Your task to perform on an android device: toggle priority inbox in the gmail app Image 0: 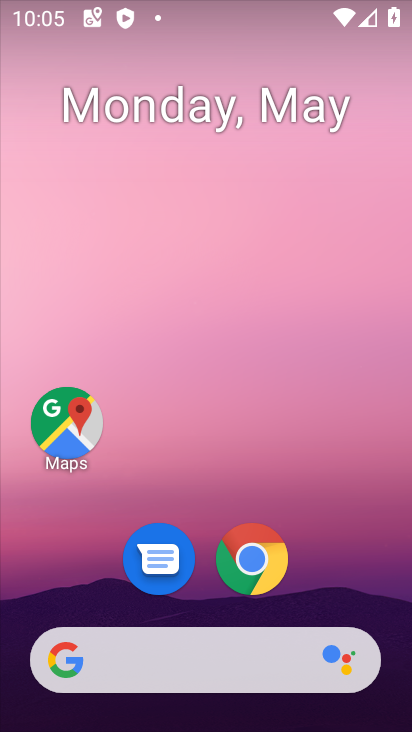
Step 0: drag from (327, 560) to (265, 133)
Your task to perform on an android device: toggle priority inbox in the gmail app Image 1: 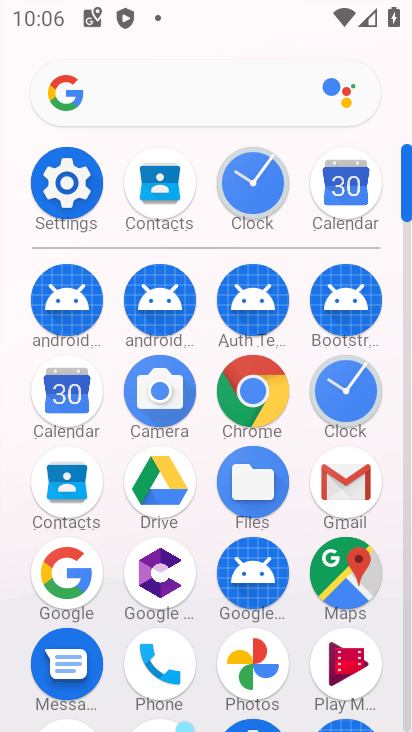
Step 1: click (352, 487)
Your task to perform on an android device: toggle priority inbox in the gmail app Image 2: 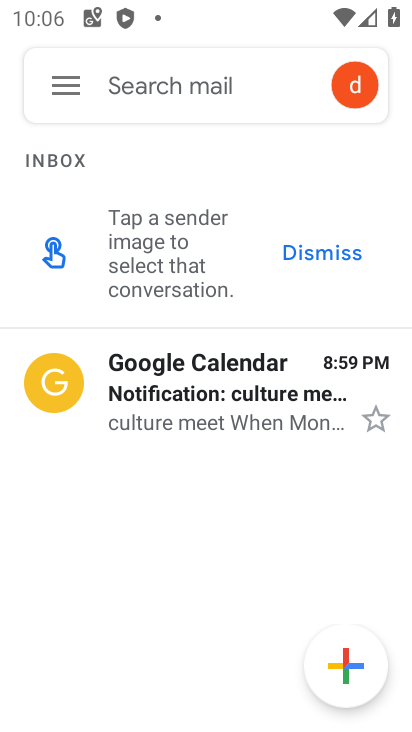
Step 2: click (71, 78)
Your task to perform on an android device: toggle priority inbox in the gmail app Image 3: 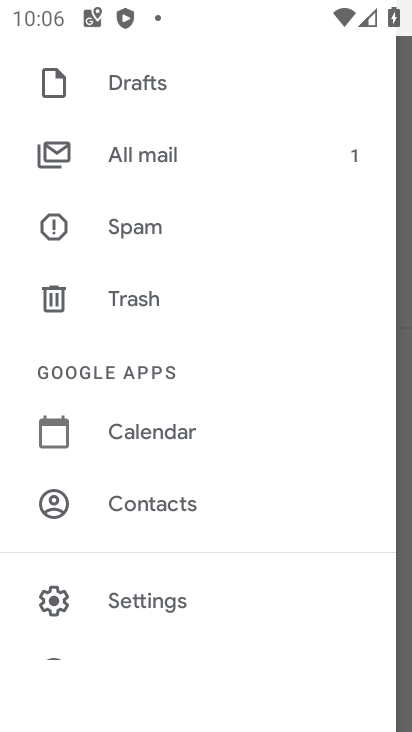
Step 3: click (167, 603)
Your task to perform on an android device: toggle priority inbox in the gmail app Image 4: 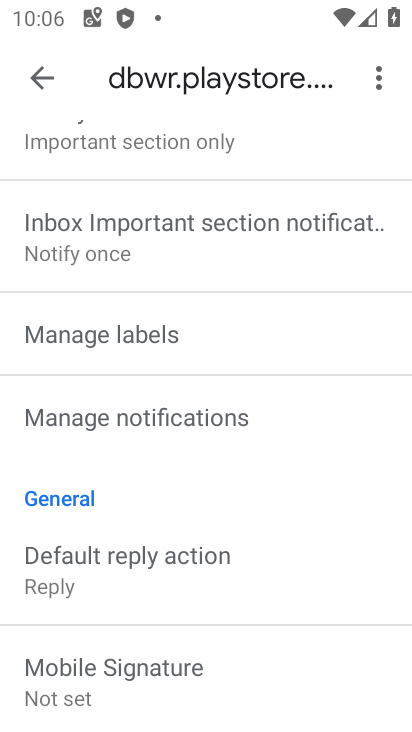
Step 4: drag from (127, 202) to (162, 559)
Your task to perform on an android device: toggle priority inbox in the gmail app Image 5: 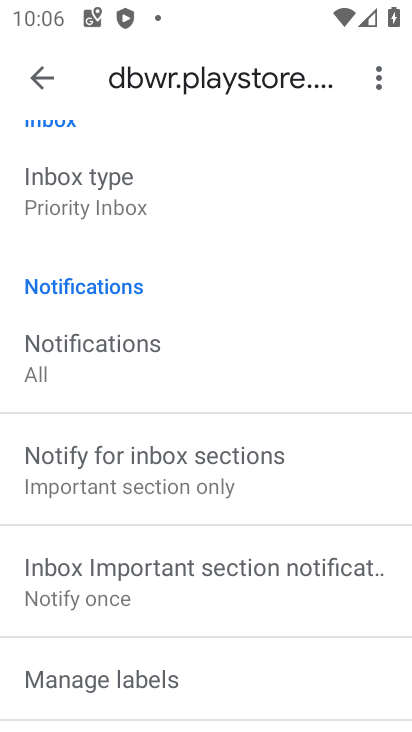
Step 5: click (93, 189)
Your task to perform on an android device: toggle priority inbox in the gmail app Image 6: 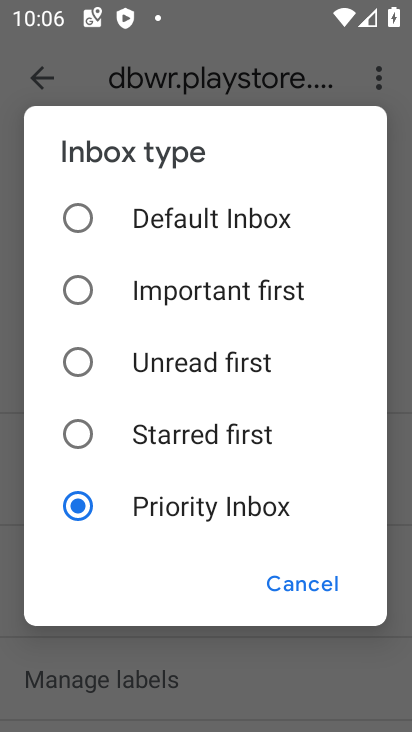
Step 6: click (81, 218)
Your task to perform on an android device: toggle priority inbox in the gmail app Image 7: 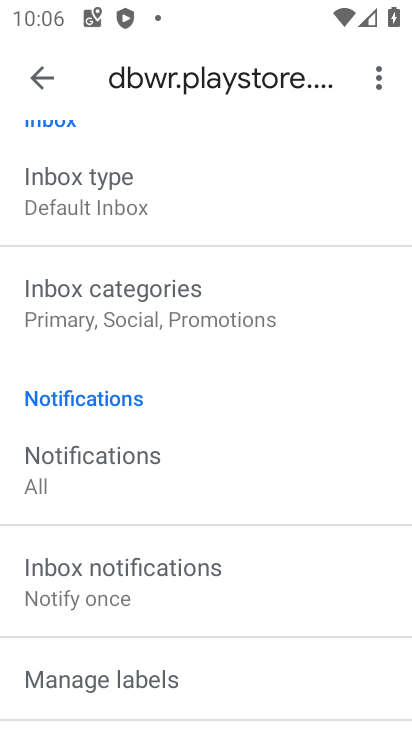
Step 7: task complete